Your task to perform on an android device: turn on wifi Image 0: 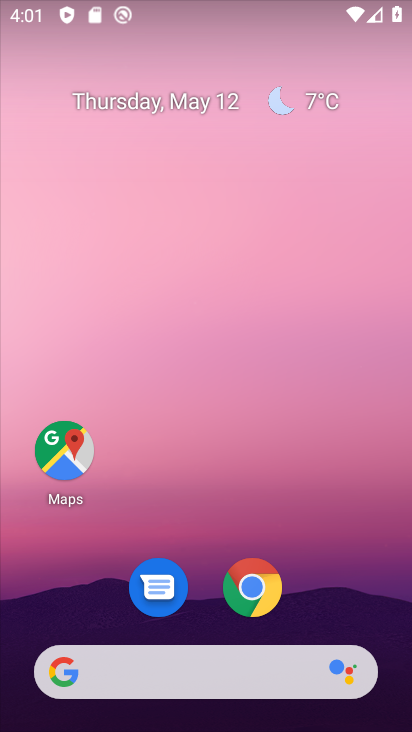
Step 0: drag from (318, 569) to (357, 55)
Your task to perform on an android device: turn on wifi Image 1: 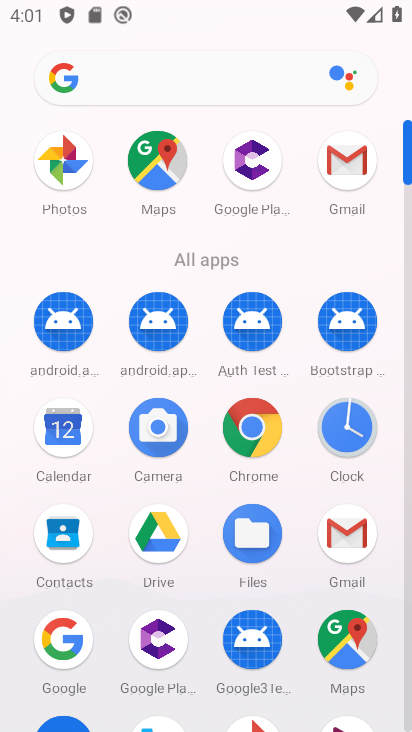
Step 1: drag from (195, 608) to (200, 317)
Your task to perform on an android device: turn on wifi Image 2: 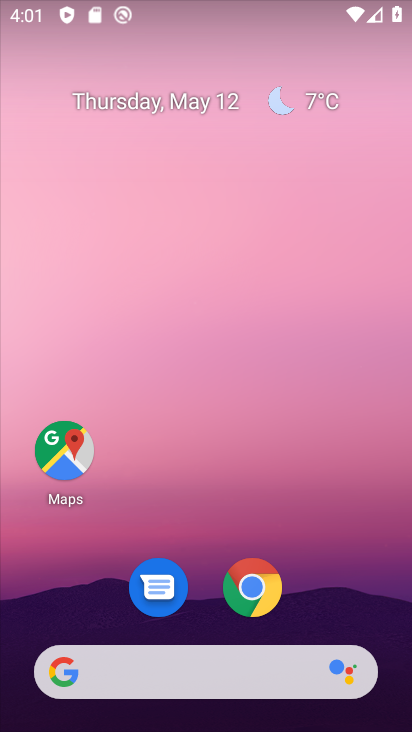
Step 2: drag from (209, 563) to (247, 63)
Your task to perform on an android device: turn on wifi Image 3: 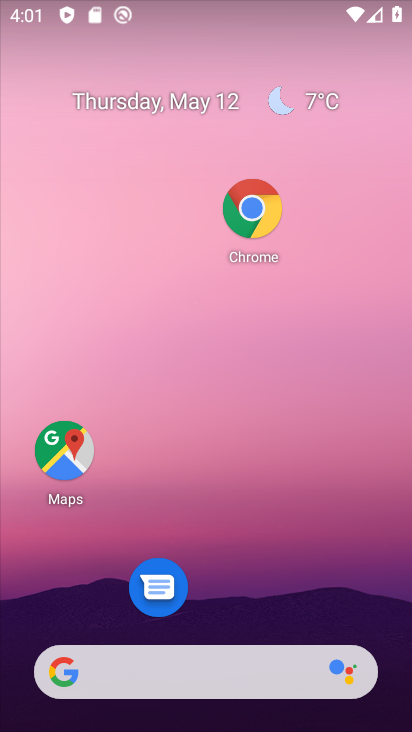
Step 3: drag from (273, 583) to (267, 25)
Your task to perform on an android device: turn on wifi Image 4: 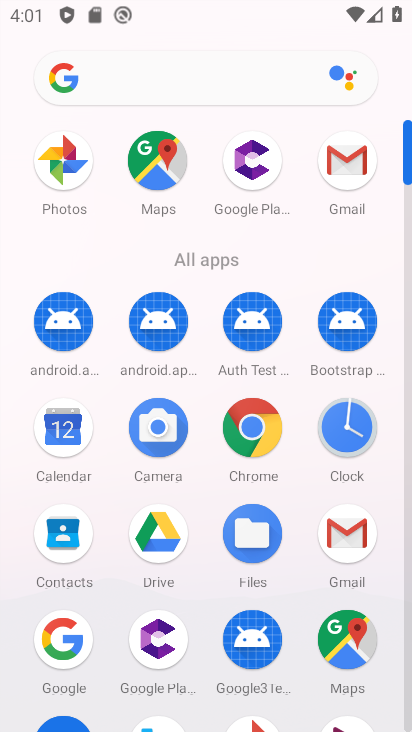
Step 4: drag from (193, 613) to (228, 226)
Your task to perform on an android device: turn on wifi Image 5: 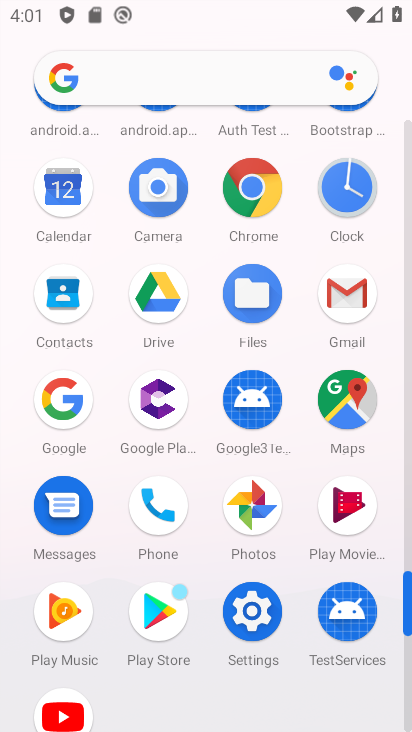
Step 5: click (263, 626)
Your task to perform on an android device: turn on wifi Image 6: 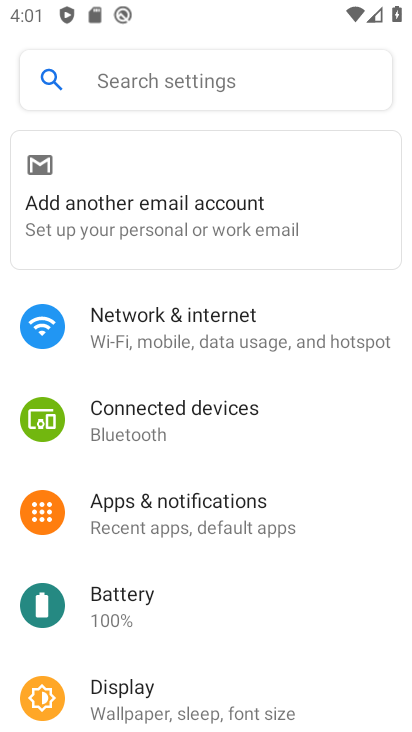
Step 6: click (164, 325)
Your task to perform on an android device: turn on wifi Image 7: 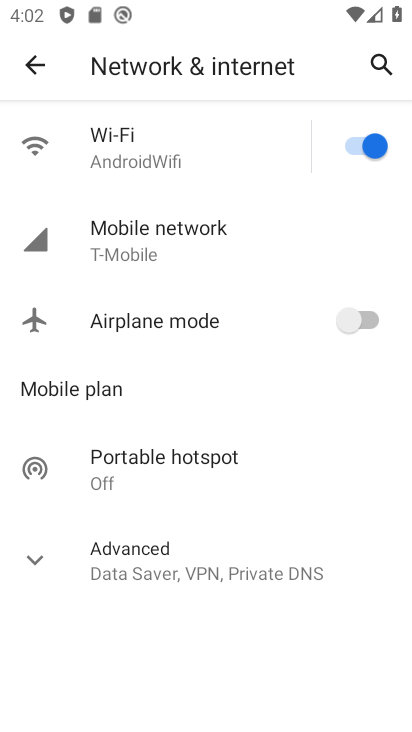
Step 7: task complete